Your task to perform on an android device: turn off improve location accuracy Image 0: 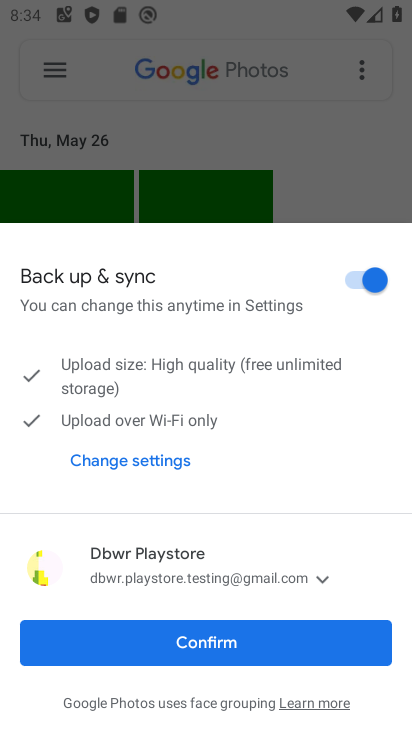
Step 0: press home button
Your task to perform on an android device: turn off improve location accuracy Image 1: 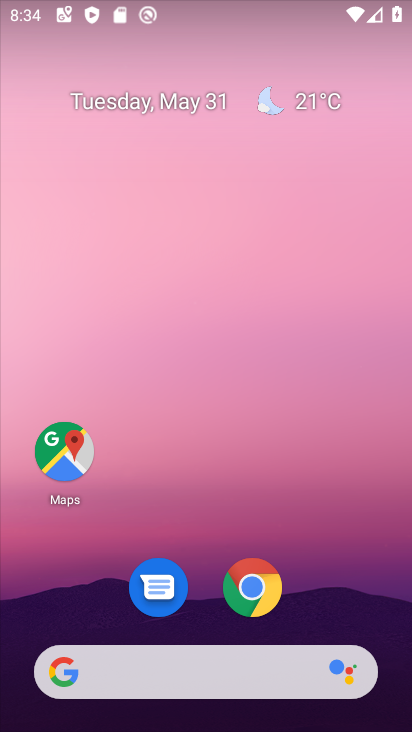
Step 1: drag from (193, 622) to (212, 70)
Your task to perform on an android device: turn off improve location accuracy Image 2: 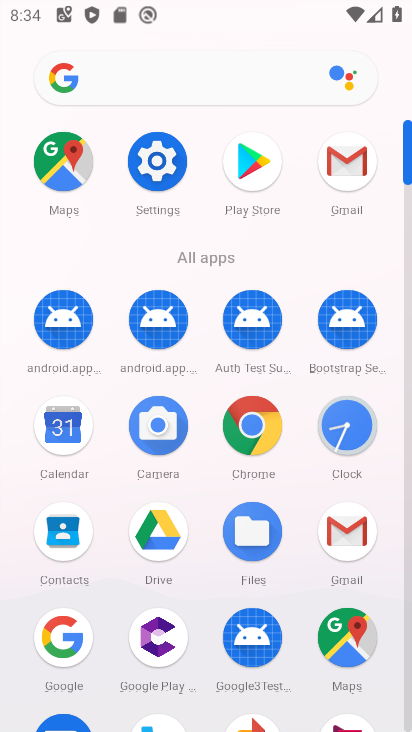
Step 2: click (167, 162)
Your task to perform on an android device: turn off improve location accuracy Image 3: 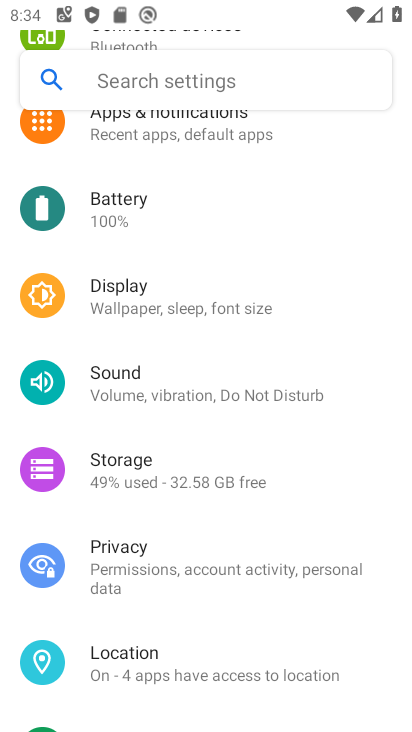
Step 3: click (92, 675)
Your task to perform on an android device: turn off improve location accuracy Image 4: 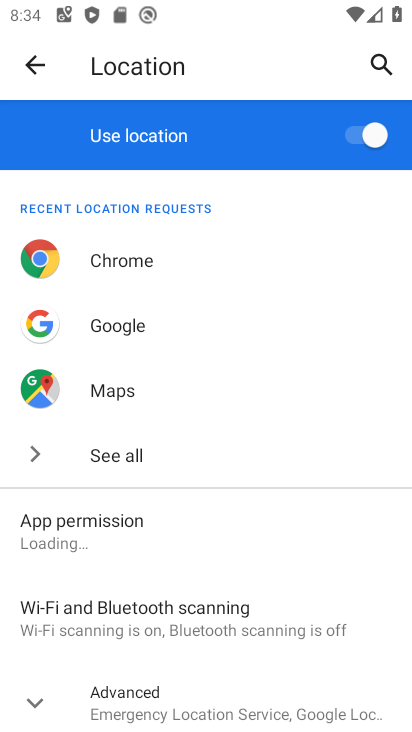
Step 4: drag from (92, 675) to (233, 97)
Your task to perform on an android device: turn off improve location accuracy Image 5: 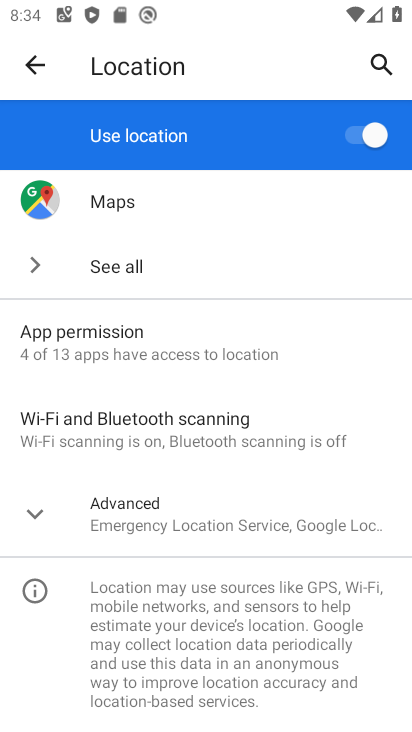
Step 5: click (181, 531)
Your task to perform on an android device: turn off improve location accuracy Image 6: 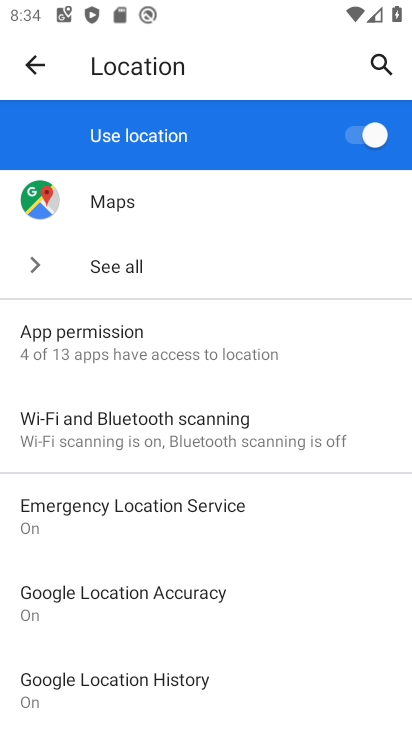
Step 6: click (168, 570)
Your task to perform on an android device: turn off improve location accuracy Image 7: 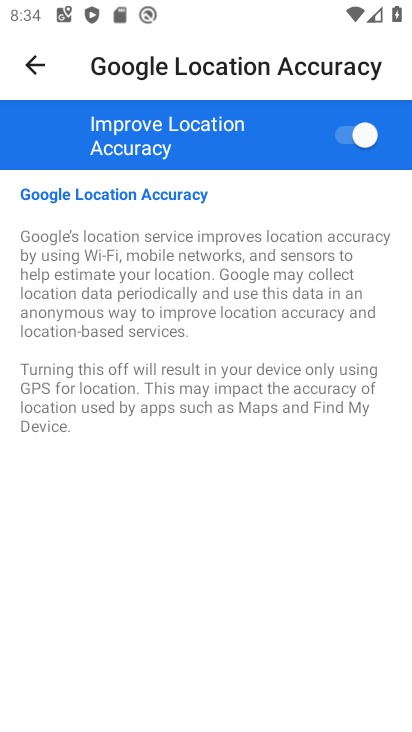
Step 7: click (348, 136)
Your task to perform on an android device: turn off improve location accuracy Image 8: 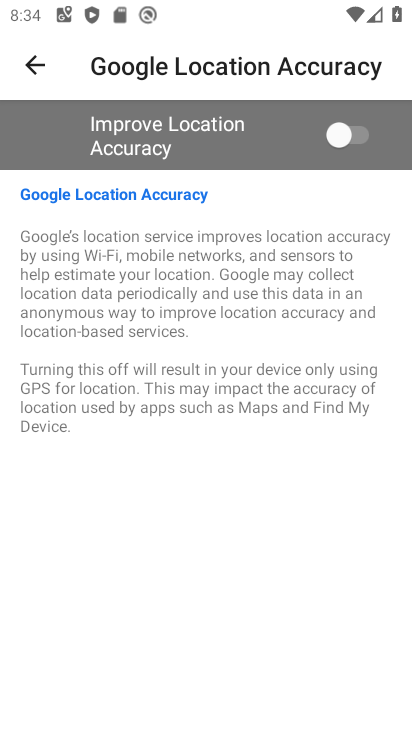
Step 8: task complete